Your task to perform on an android device: Search for Italian restaurants on Maps Image 0: 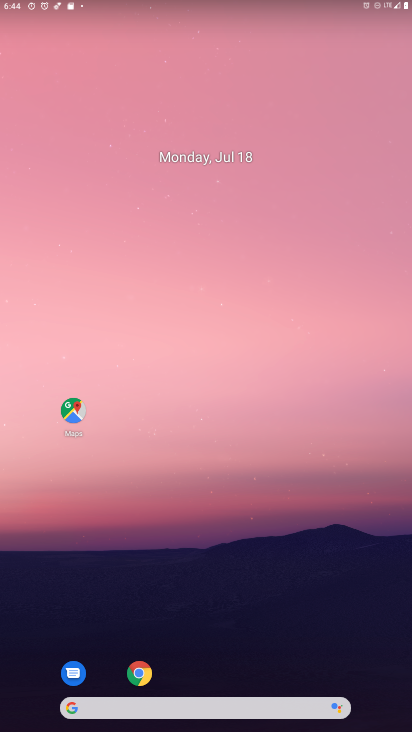
Step 0: click (77, 415)
Your task to perform on an android device: Search for Italian restaurants on Maps Image 1: 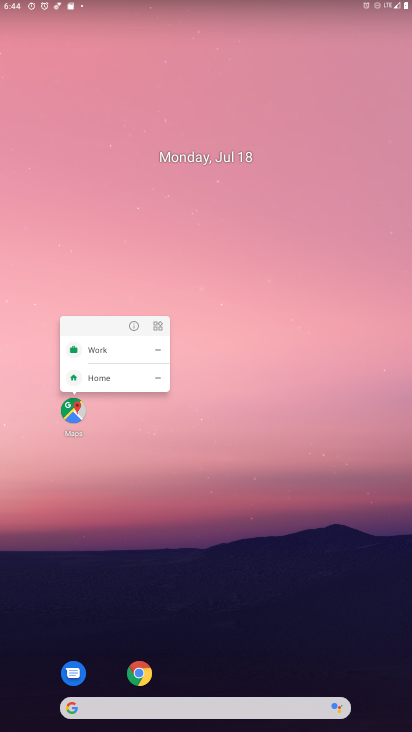
Step 1: click (77, 415)
Your task to perform on an android device: Search for Italian restaurants on Maps Image 2: 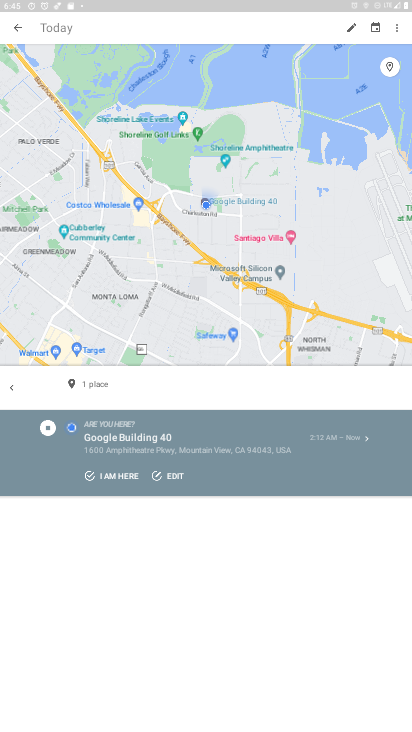
Step 2: click (16, 25)
Your task to perform on an android device: Search for Italian restaurants on Maps Image 3: 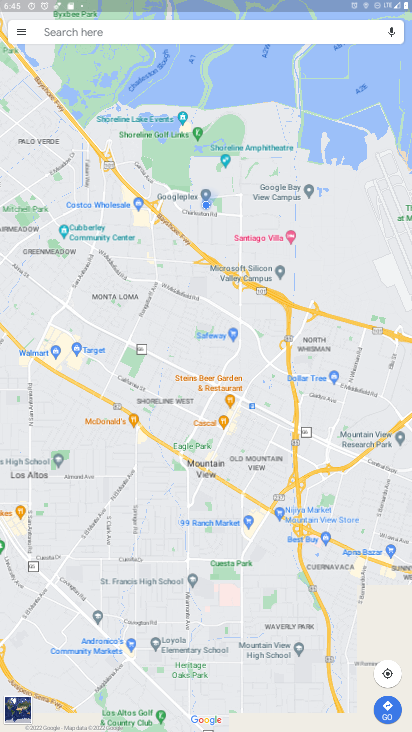
Step 3: click (127, 29)
Your task to perform on an android device: Search for Italian restaurants on Maps Image 4: 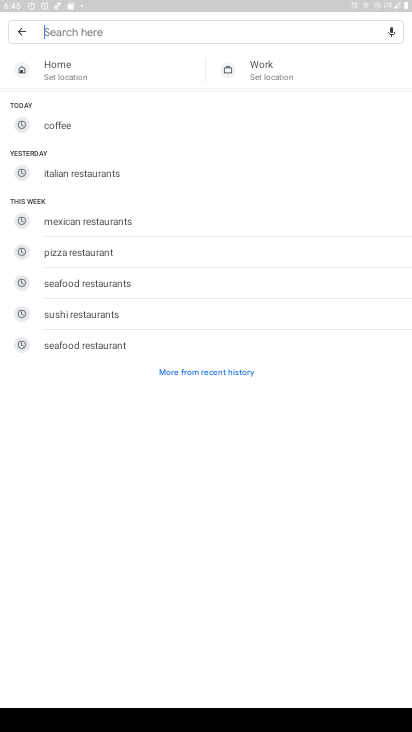
Step 4: type "Italian restaurants"
Your task to perform on an android device: Search for Italian restaurants on Maps Image 5: 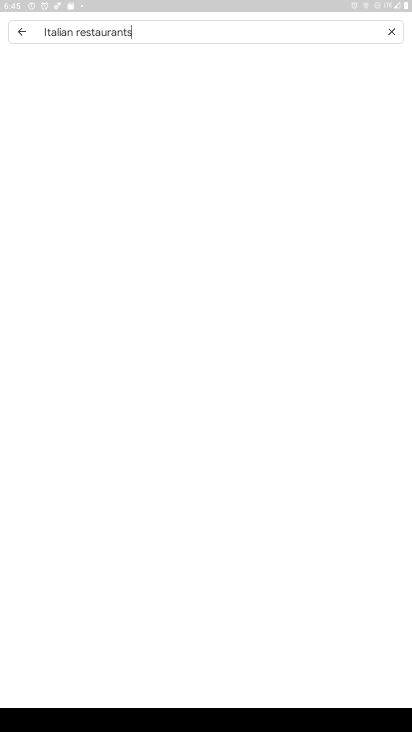
Step 5: press enter
Your task to perform on an android device: Search for Italian restaurants on Maps Image 6: 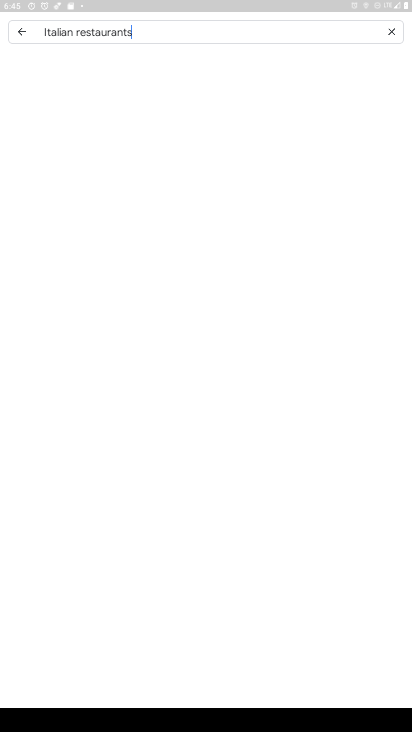
Step 6: type ""
Your task to perform on an android device: Search for Italian restaurants on Maps Image 7: 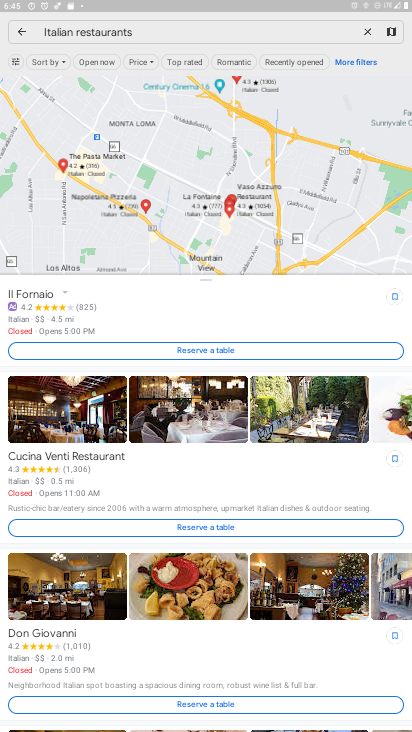
Step 7: task complete